Your task to perform on an android device: Open accessibility settings Image 0: 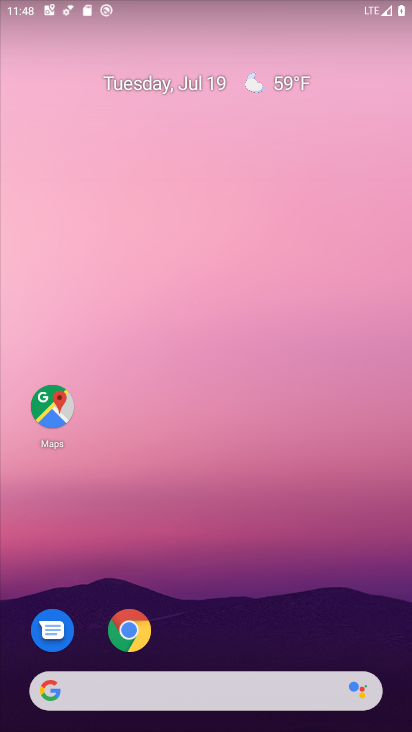
Step 0: drag from (383, 644) to (365, 154)
Your task to perform on an android device: Open accessibility settings Image 1: 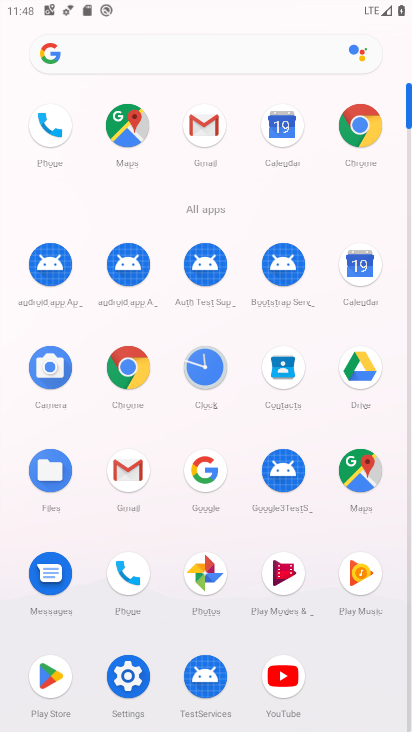
Step 1: click (130, 676)
Your task to perform on an android device: Open accessibility settings Image 2: 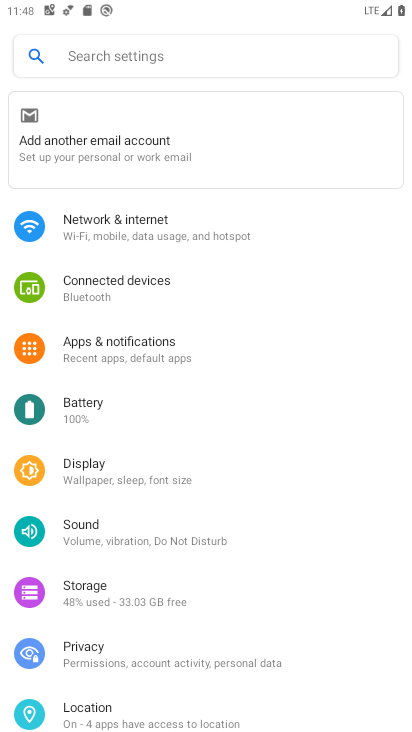
Step 2: drag from (303, 622) to (304, 241)
Your task to perform on an android device: Open accessibility settings Image 3: 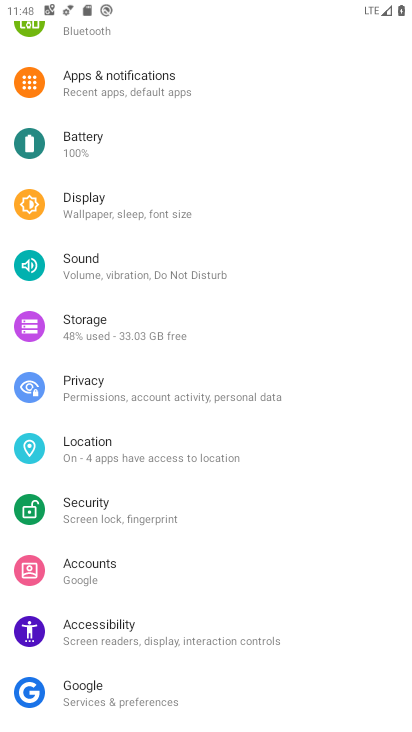
Step 3: drag from (253, 615) to (296, 352)
Your task to perform on an android device: Open accessibility settings Image 4: 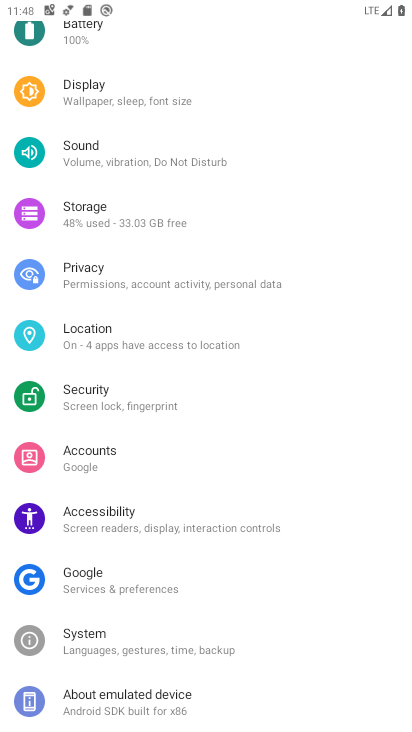
Step 4: click (89, 510)
Your task to perform on an android device: Open accessibility settings Image 5: 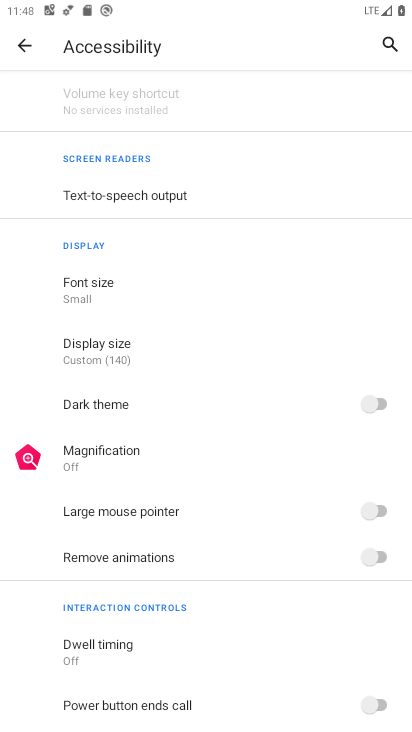
Step 5: task complete